Your task to perform on an android device: Go to Wikipedia Image 0: 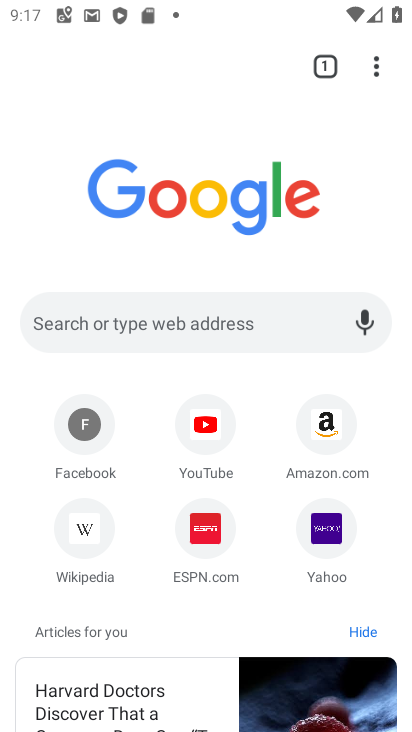
Step 0: click (85, 529)
Your task to perform on an android device: Go to Wikipedia Image 1: 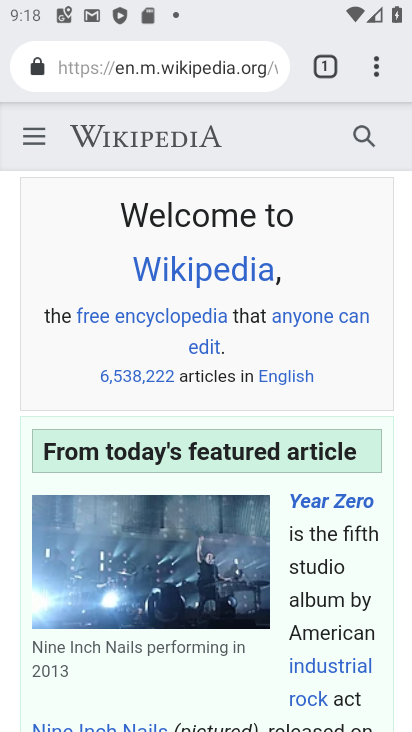
Step 1: task complete